Your task to perform on an android device: turn notification dots on Image 0: 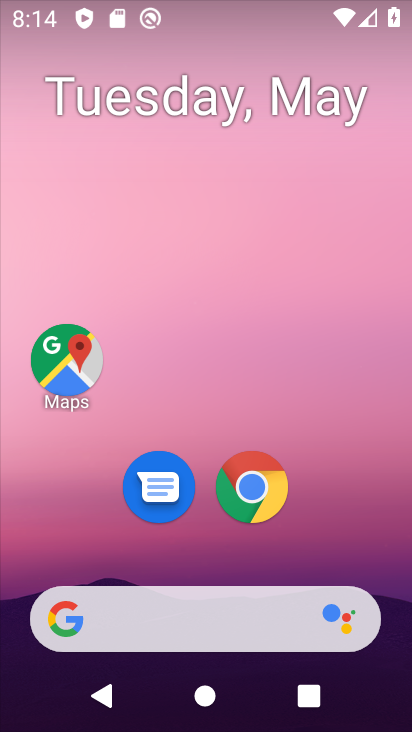
Step 0: drag from (343, 548) to (350, 77)
Your task to perform on an android device: turn notification dots on Image 1: 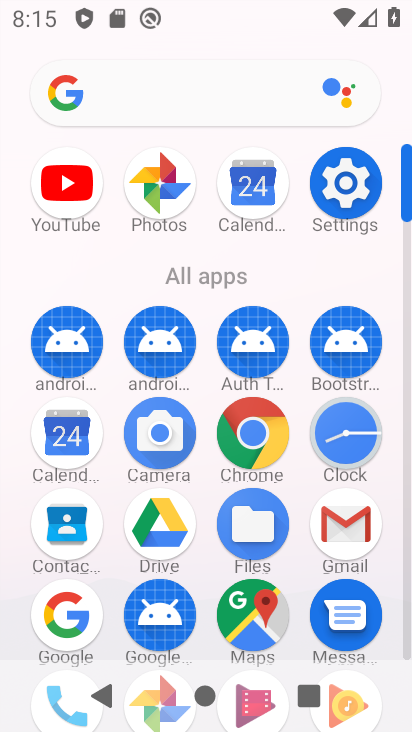
Step 1: click (339, 188)
Your task to perform on an android device: turn notification dots on Image 2: 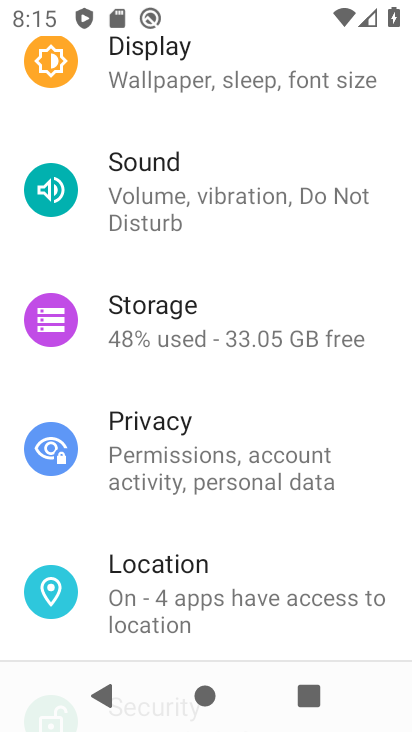
Step 2: drag from (313, 539) to (270, 726)
Your task to perform on an android device: turn notification dots on Image 3: 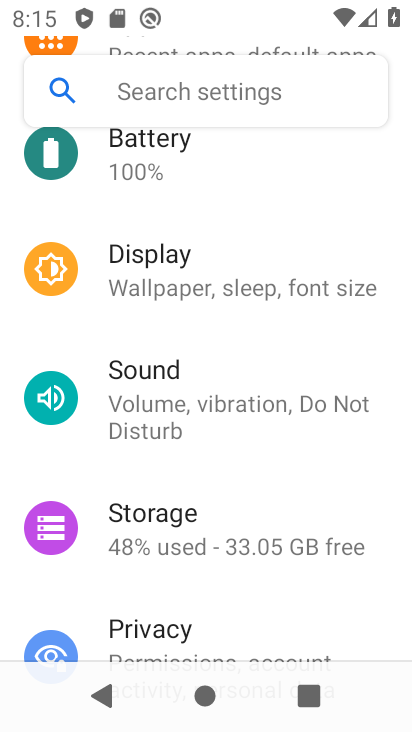
Step 3: drag from (276, 174) to (246, 617)
Your task to perform on an android device: turn notification dots on Image 4: 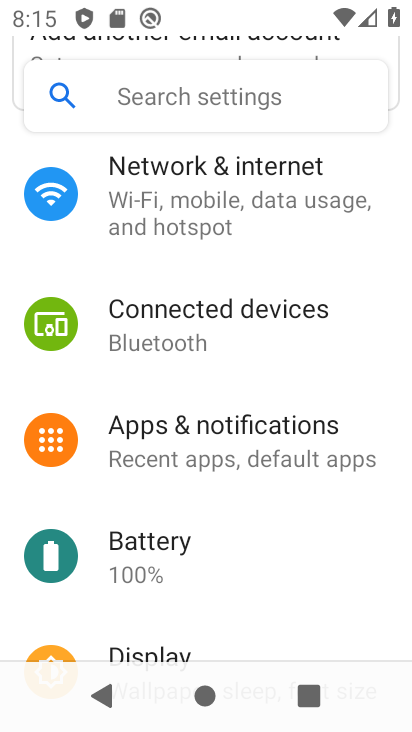
Step 4: click (170, 430)
Your task to perform on an android device: turn notification dots on Image 5: 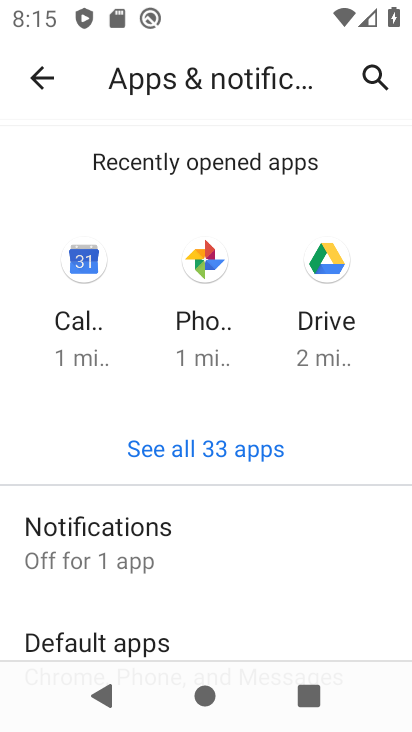
Step 5: drag from (299, 612) to (307, 86)
Your task to perform on an android device: turn notification dots on Image 6: 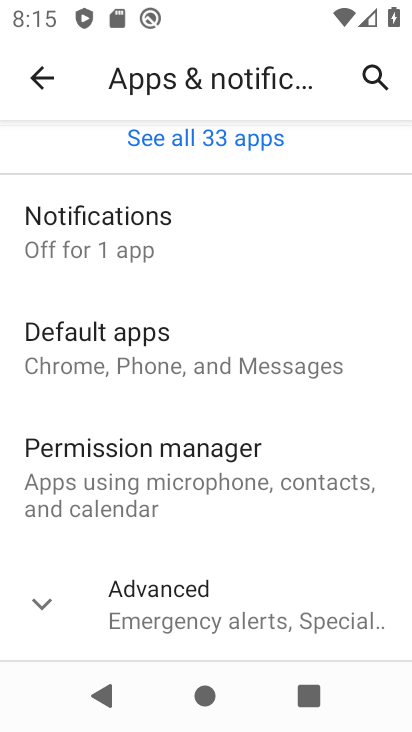
Step 6: click (196, 606)
Your task to perform on an android device: turn notification dots on Image 7: 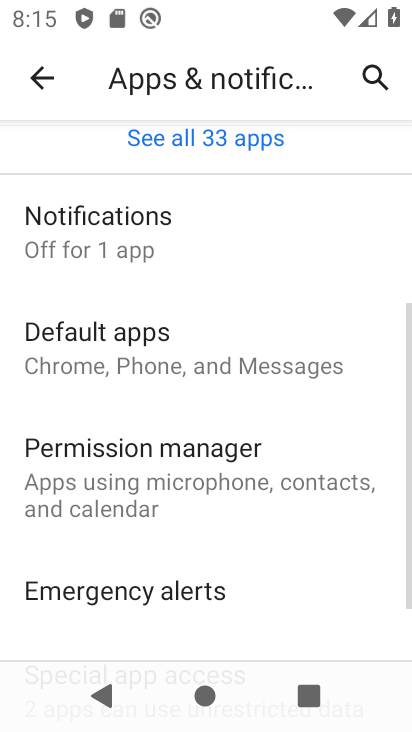
Step 7: drag from (330, 590) to (338, 227)
Your task to perform on an android device: turn notification dots on Image 8: 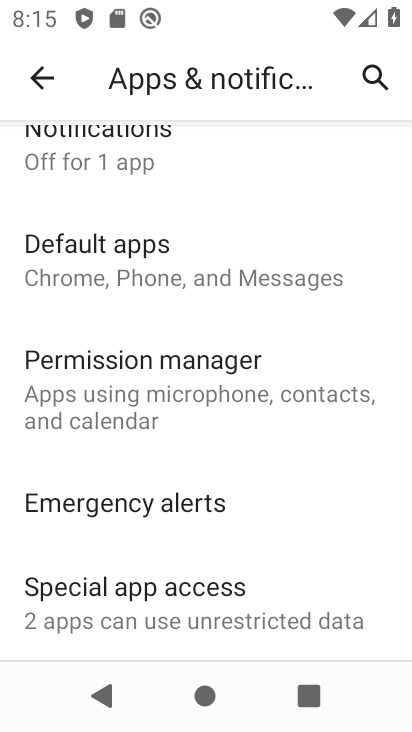
Step 8: drag from (291, 534) to (295, 263)
Your task to perform on an android device: turn notification dots on Image 9: 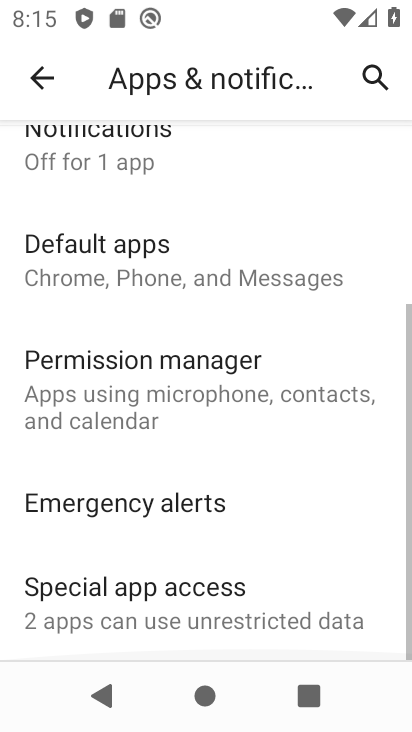
Step 9: drag from (286, 226) to (269, 406)
Your task to perform on an android device: turn notification dots on Image 10: 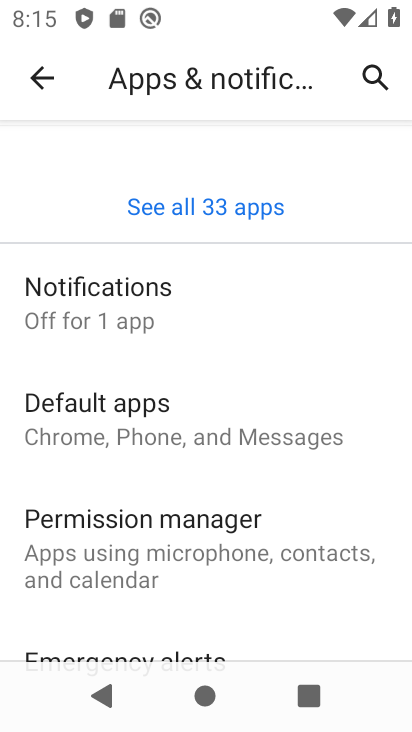
Step 10: click (74, 290)
Your task to perform on an android device: turn notification dots on Image 11: 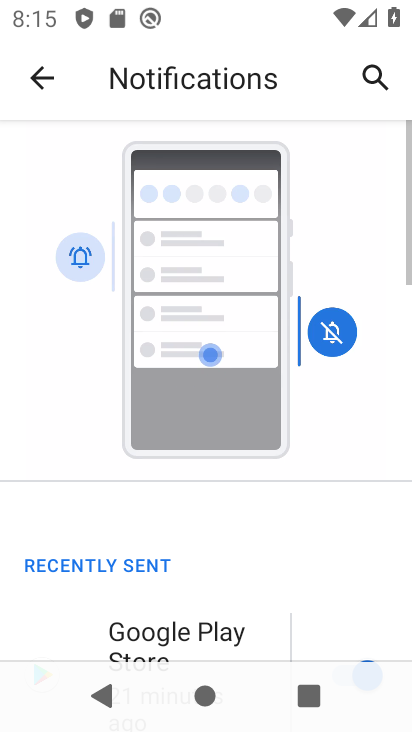
Step 11: drag from (355, 599) to (386, 137)
Your task to perform on an android device: turn notification dots on Image 12: 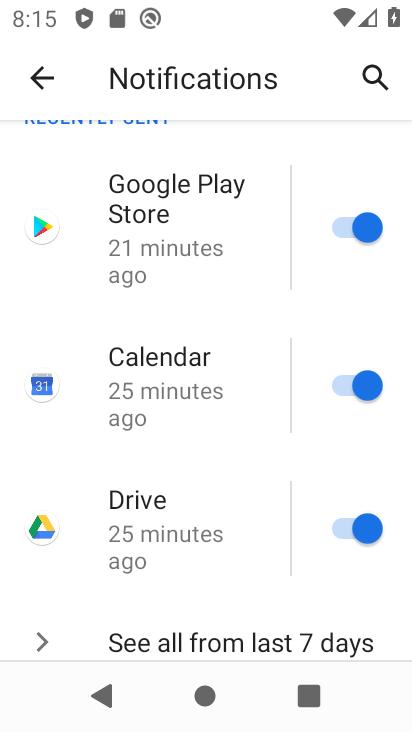
Step 12: drag from (243, 564) to (268, 164)
Your task to perform on an android device: turn notification dots on Image 13: 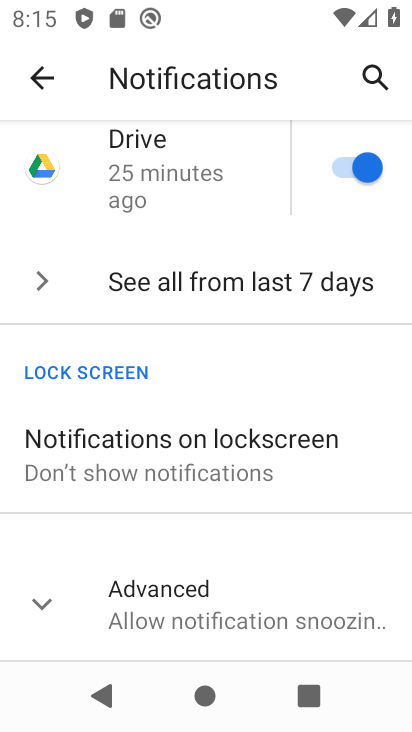
Step 13: click (173, 604)
Your task to perform on an android device: turn notification dots on Image 14: 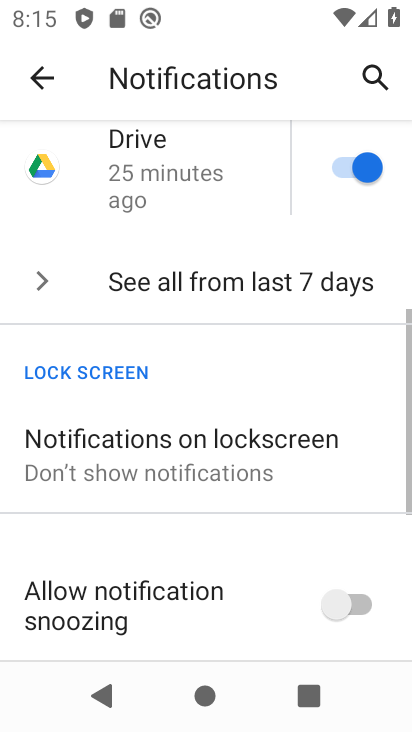
Step 14: task complete